Your task to perform on an android device: When is my next appointment? Image 0: 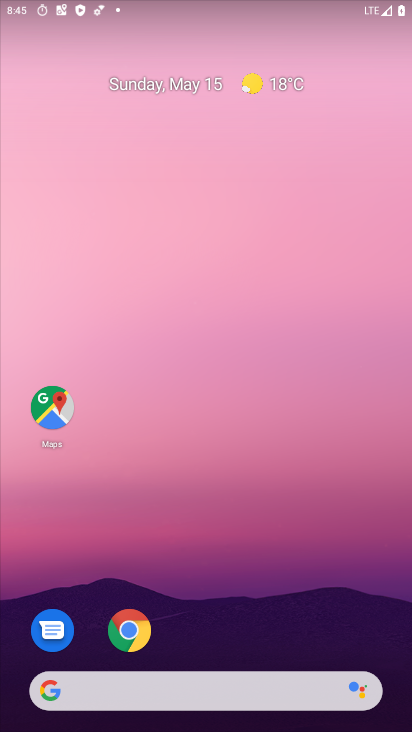
Step 0: drag from (201, 661) to (203, 195)
Your task to perform on an android device: When is my next appointment? Image 1: 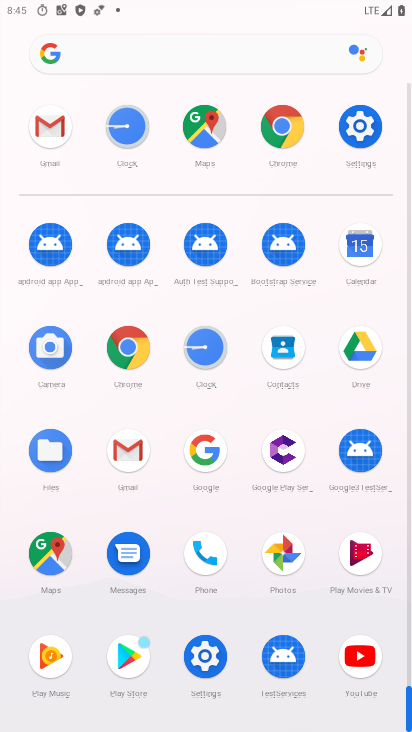
Step 1: click (358, 243)
Your task to perform on an android device: When is my next appointment? Image 2: 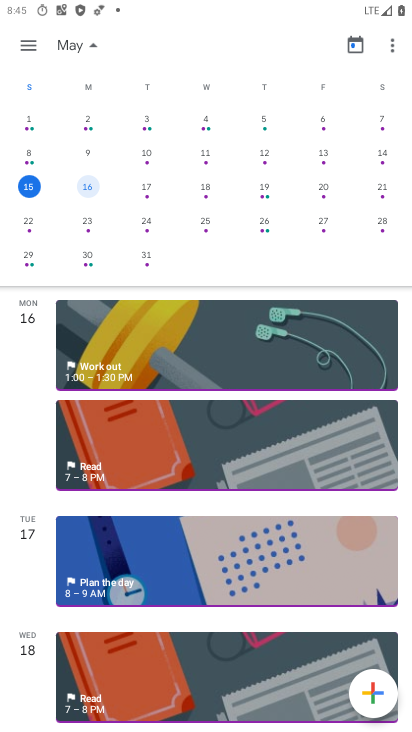
Step 2: click (93, 188)
Your task to perform on an android device: When is my next appointment? Image 3: 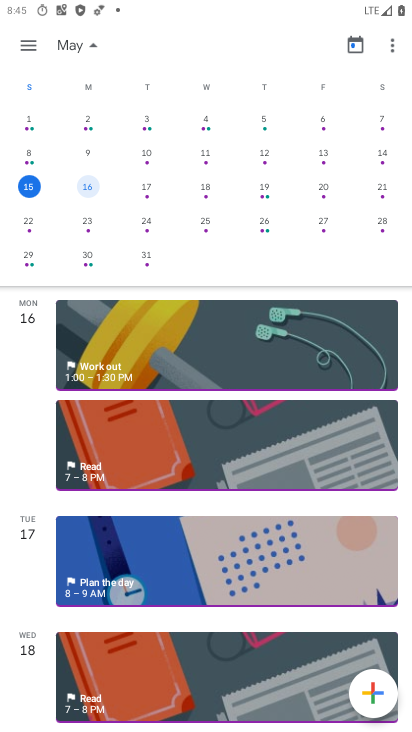
Step 3: task complete